Your task to perform on an android device: turn on bluetooth scan Image 0: 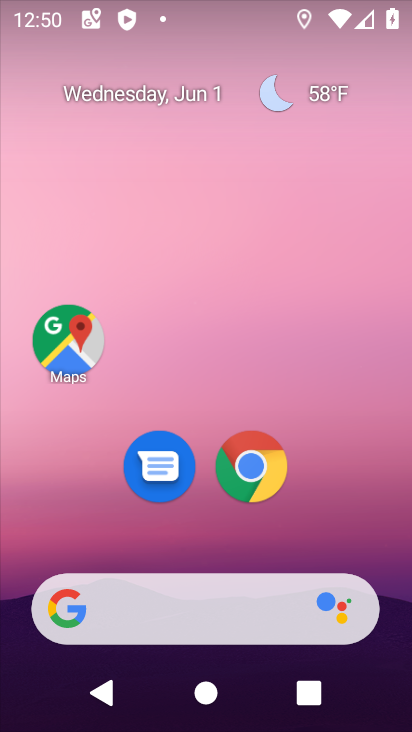
Step 0: drag from (345, 543) to (331, 161)
Your task to perform on an android device: turn on bluetooth scan Image 1: 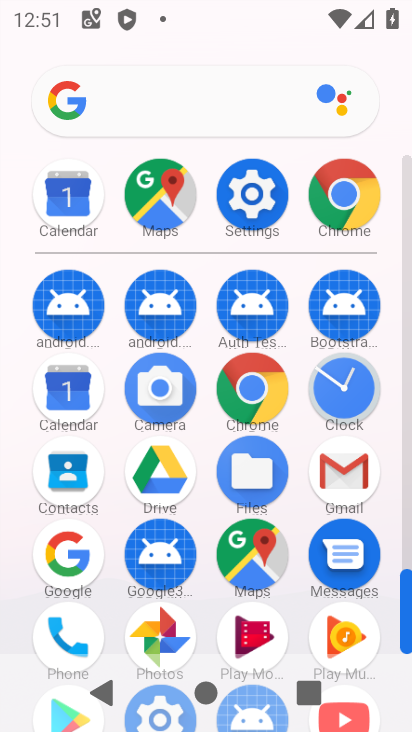
Step 1: click (252, 176)
Your task to perform on an android device: turn on bluetooth scan Image 2: 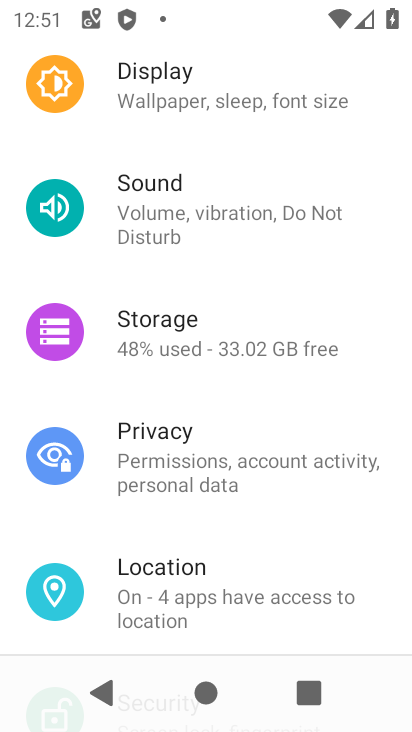
Step 2: drag from (241, 174) to (246, 127)
Your task to perform on an android device: turn on bluetooth scan Image 3: 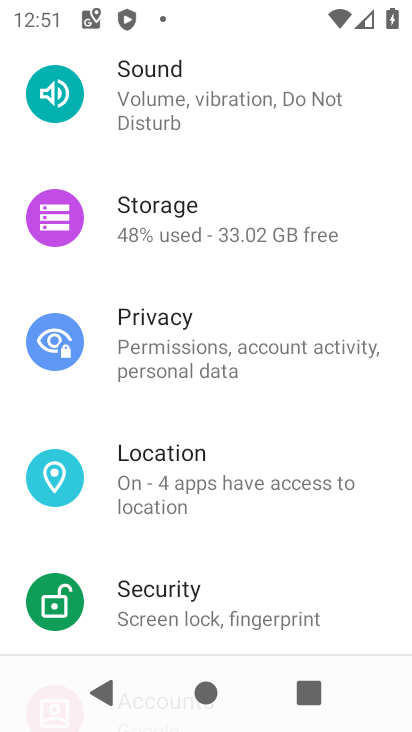
Step 3: click (272, 496)
Your task to perform on an android device: turn on bluetooth scan Image 4: 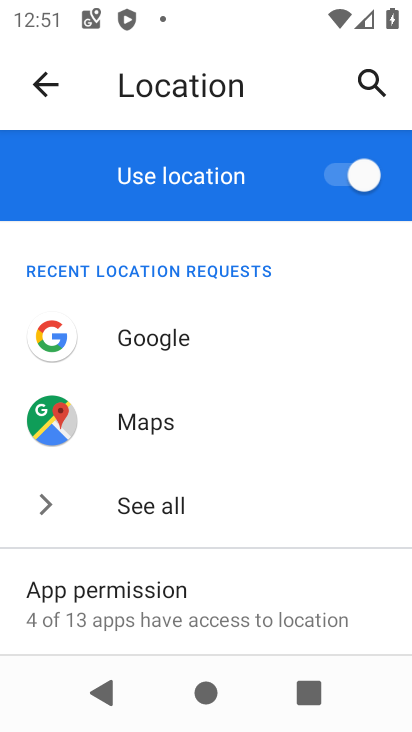
Step 4: drag from (295, 557) to (215, 194)
Your task to perform on an android device: turn on bluetooth scan Image 5: 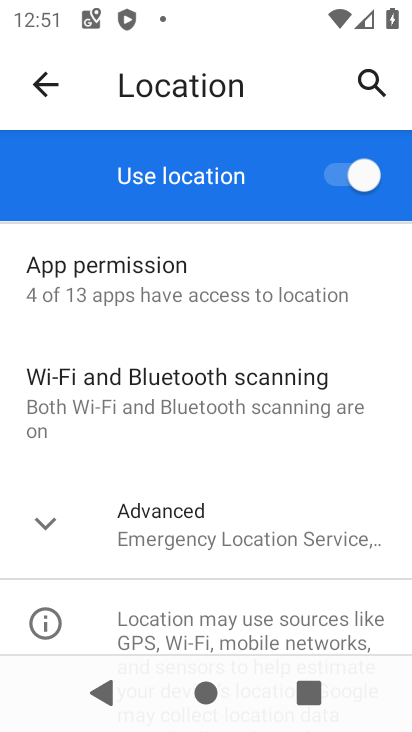
Step 5: click (265, 426)
Your task to perform on an android device: turn on bluetooth scan Image 6: 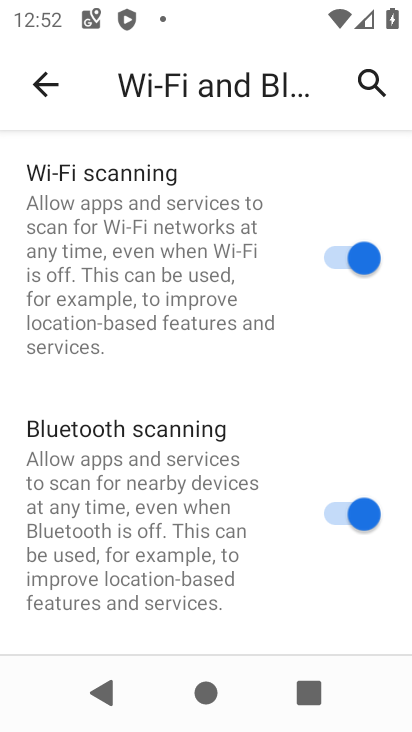
Step 6: task complete